Your task to perform on an android device: Is it going to rain tomorrow? Image 0: 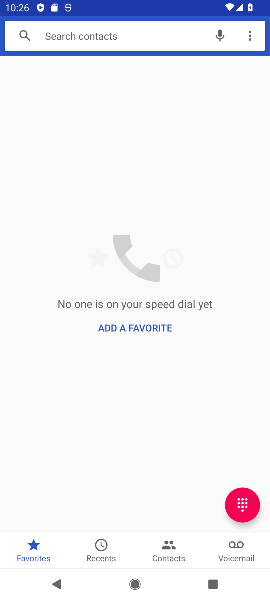
Step 0: press home button
Your task to perform on an android device: Is it going to rain tomorrow? Image 1: 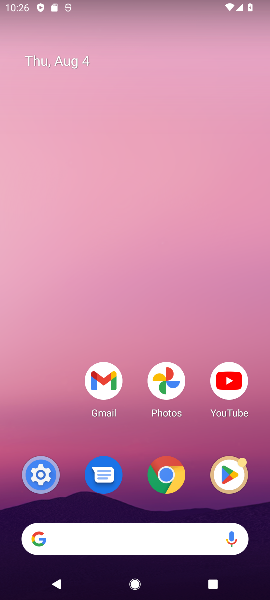
Step 1: click (52, 473)
Your task to perform on an android device: Is it going to rain tomorrow? Image 2: 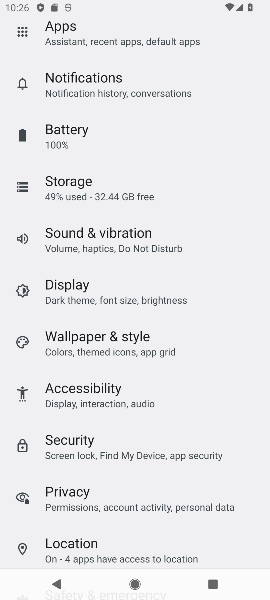
Step 2: drag from (131, 121) to (154, 470)
Your task to perform on an android device: Is it going to rain tomorrow? Image 3: 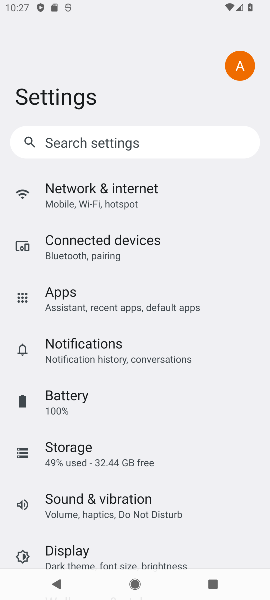
Step 3: drag from (188, 486) to (117, 158)
Your task to perform on an android device: Is it going to rain tomorrow? Image 4: 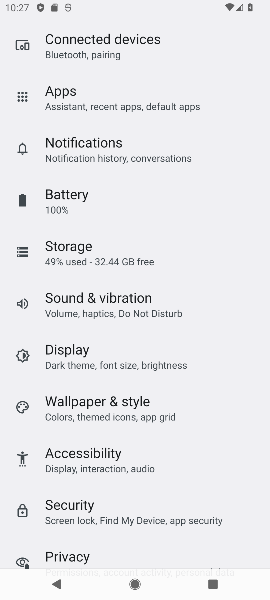
Step 4: drag from (128, 521) to (103, 259)
Your task to perform on an android device: Is it going to rain tomorrow? Image 5: 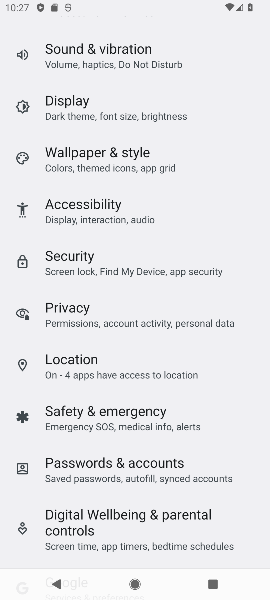
Step 5: press home button
Your task to perform on an android device: Is it going to rain tomorrow? Image 6: 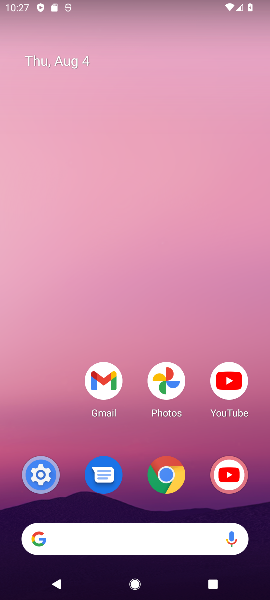
Step 6: click (128, 545)
Your task to perform on an android device: Is it going to rain tomorrow? Image 7: 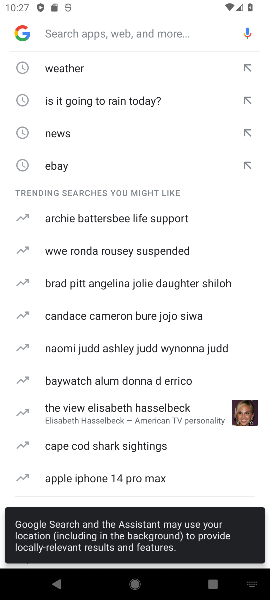
Step 7: click (65, 64)
Your task to perform on an android device: Is it going to rain tomorrow? Image 8: 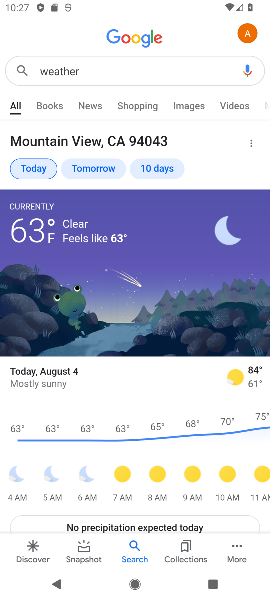
Step 8: task complete